Your task to perform on an android device: Open maps Image 0: 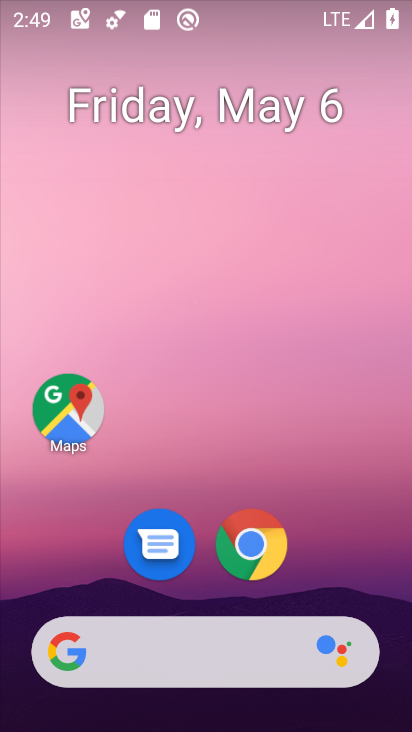
Step 0: click (58, 388)
Your task to perform on an android device: Open maps Image 1: 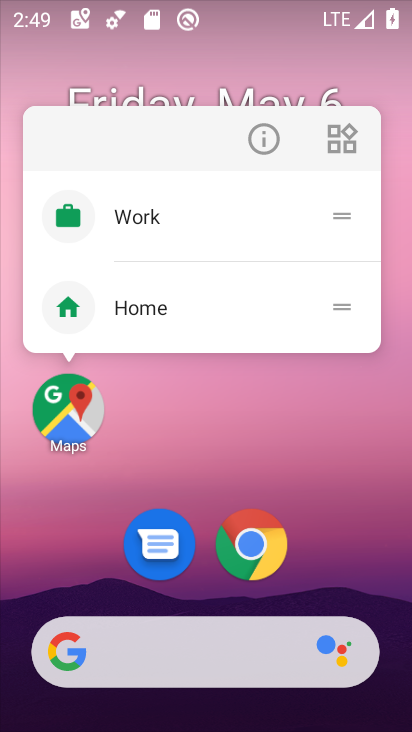
Step 1: click (63, 414)
Your task to perform on an android device: Open maps Image 2: 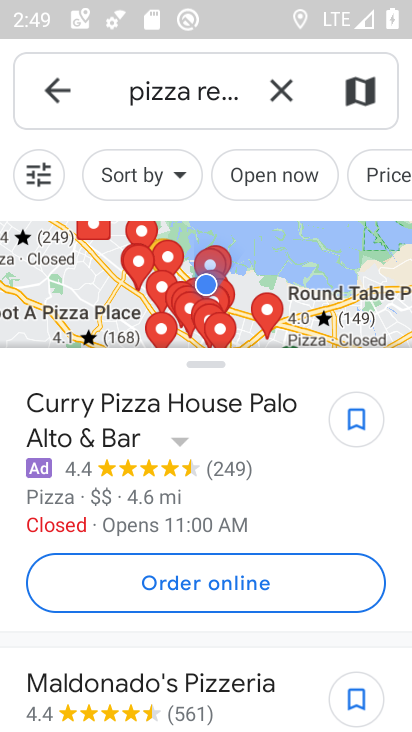
Step 2: task complete